Your task to perform on an android device: turn on javascript in the chrome app Image 0: 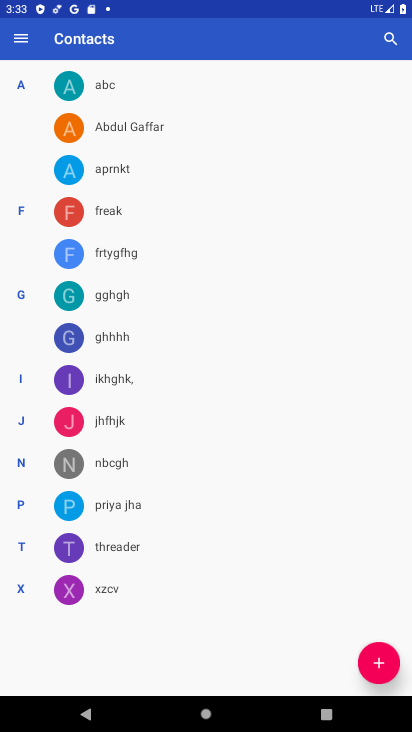
Step 0: press home button
Your task to perform on an android device: turn on javascript in the chrome app Image 1: 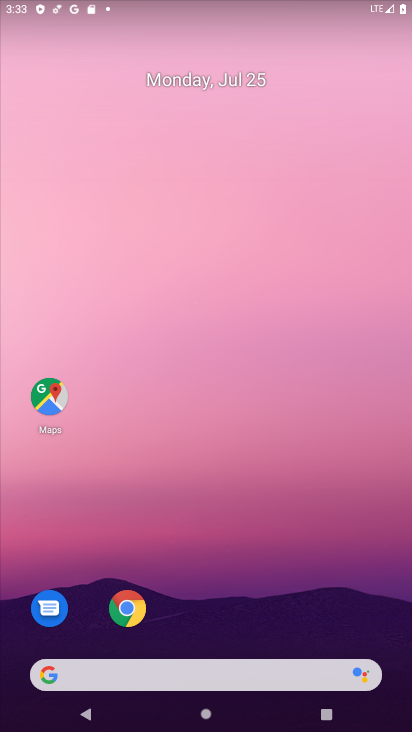
Step 1: click (136, 606)
Your task to perform on an android device: turn on javascript in the chrome app Image 2: 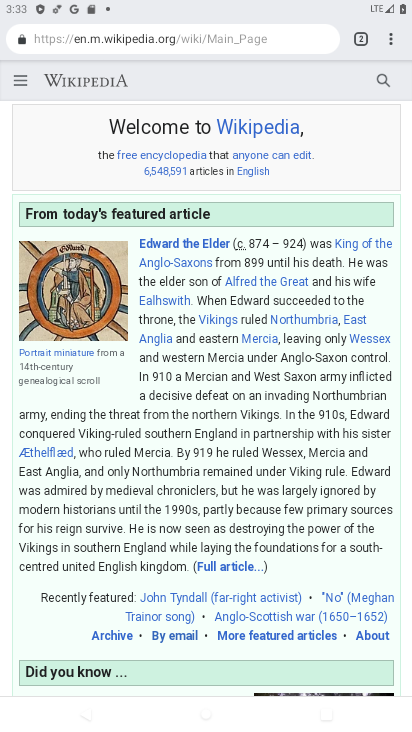
Step 2: click (386, 37)
Your task to perform on an android device: turn on javascript in the chrome app Image 3: 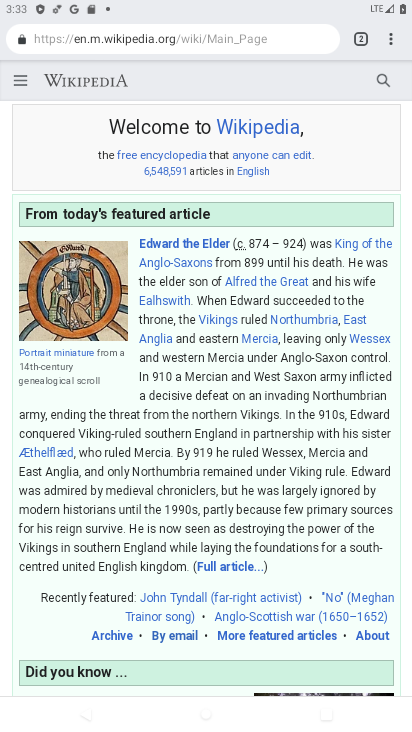
Step 3: click (391, 37)
Your task to perform on an android device: turn on javascript in the chrome app Image 4: 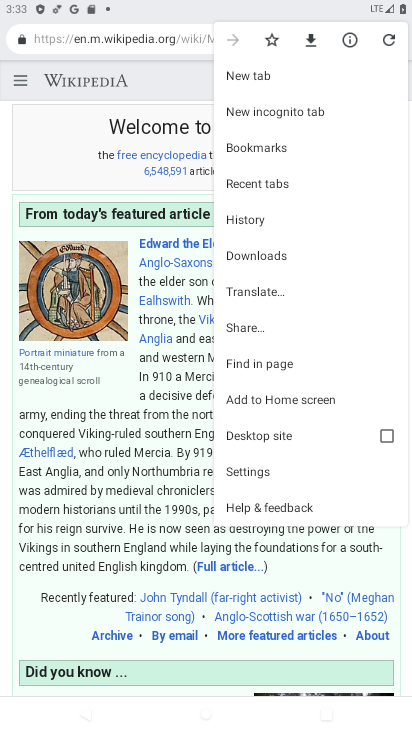
Step 4: click (234, 466)
Your task to perform on an android device: turn on javascript in the chrome app Image 5: 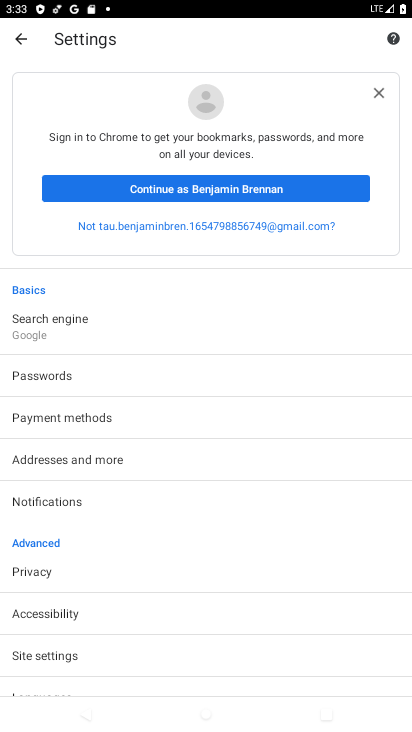
Step 5: click (50, 651)
Your task to perform on an android device: turn on javascript in the chrome app Image 6: 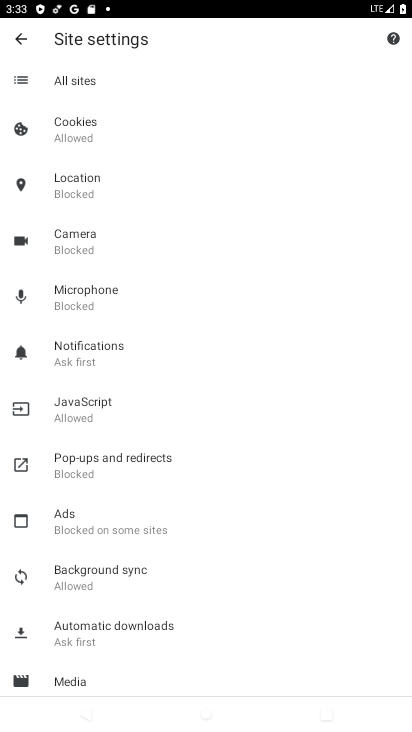
Step 6: click (132, 407)
Your task to perform on an android device: turn on javascript in the chrome app Image 7: 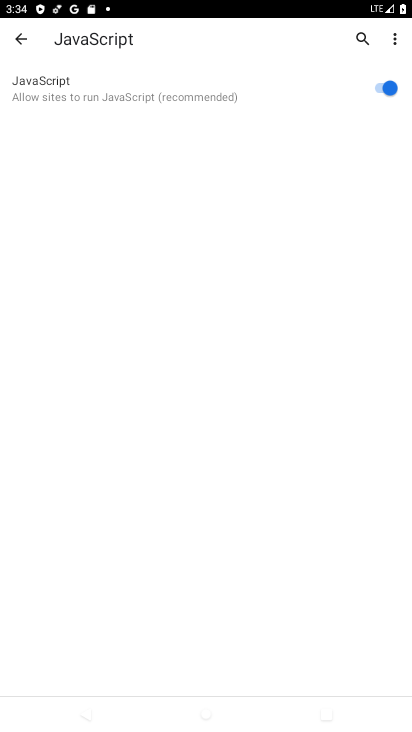
Step 7: task complete